Your task to perform on an android device: Open location settings Image 0: 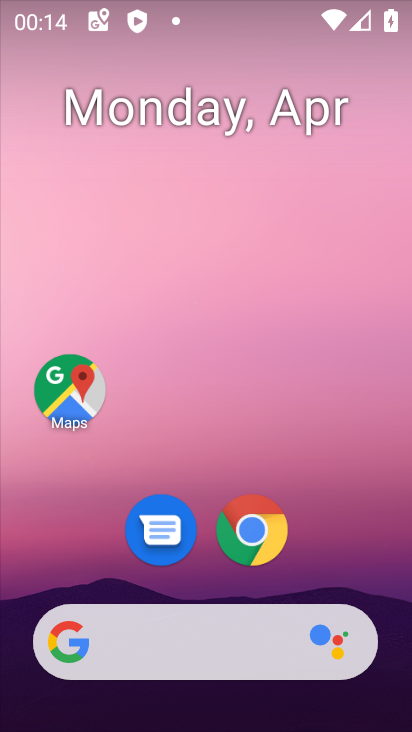
Step 0: drag from (191, 633) to (315, 24)
Your task to perform on an android device: Open location settings Image 1: 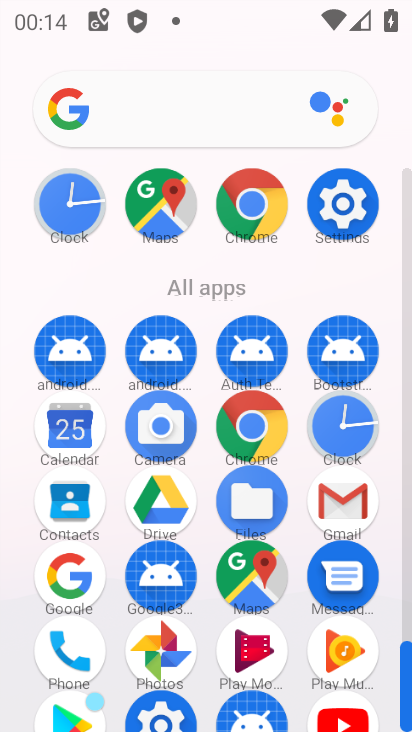
Step 1: click (341, 211)
Your task to perform on an android device: Open location settings Image 2: 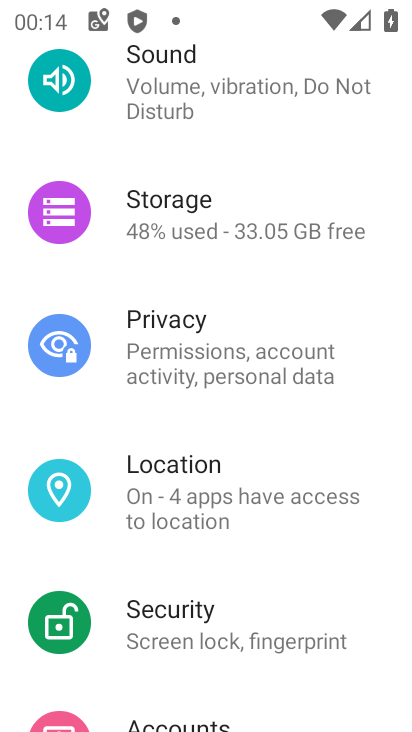
Step 2: click (183, 498)
Your task to perform on an android device: Open location settings Image 3: 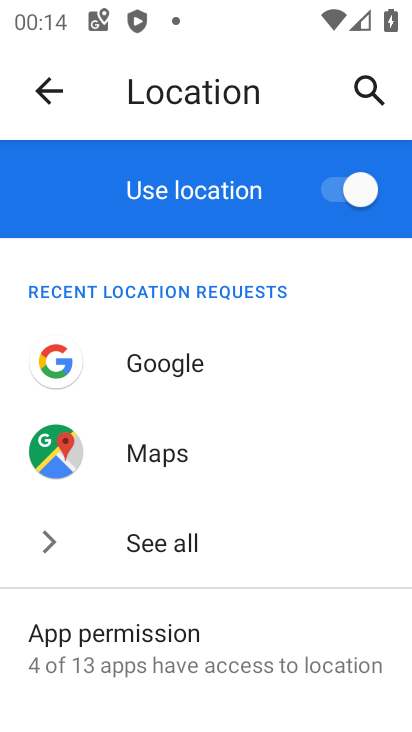
Step 3: task complete